Your task to perform on an android device: make emails show in primary in the gmail app Image 0: 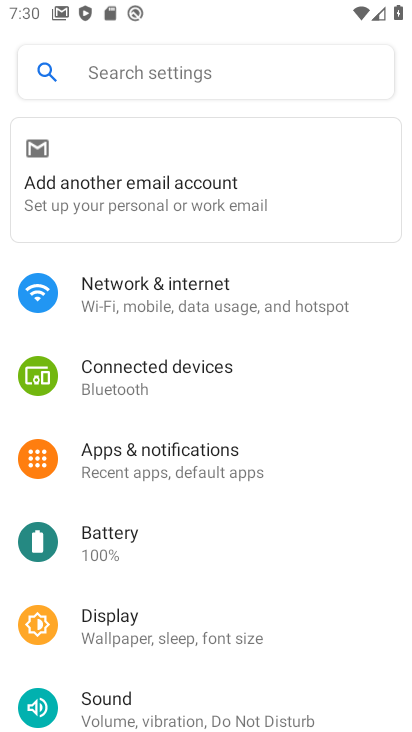
Step 0: press home button
Your task to perform on an android device: make emails show in primary in the gmail app Image 1: 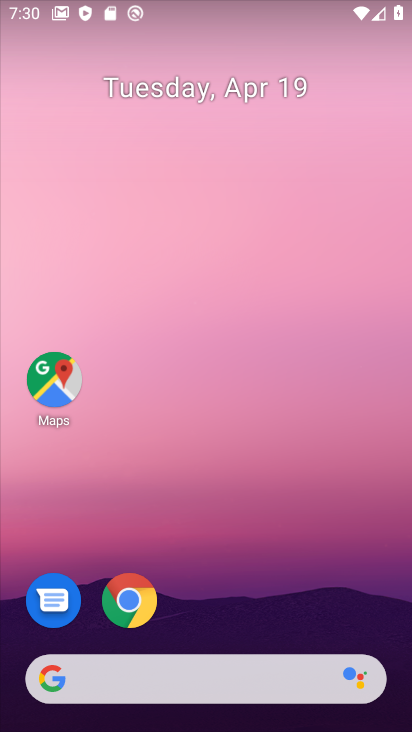
Step 1: drag from (289, 609) to (305, 83)
Your task to perform on an android device: make emails show in primary in the gmail app Image 2: 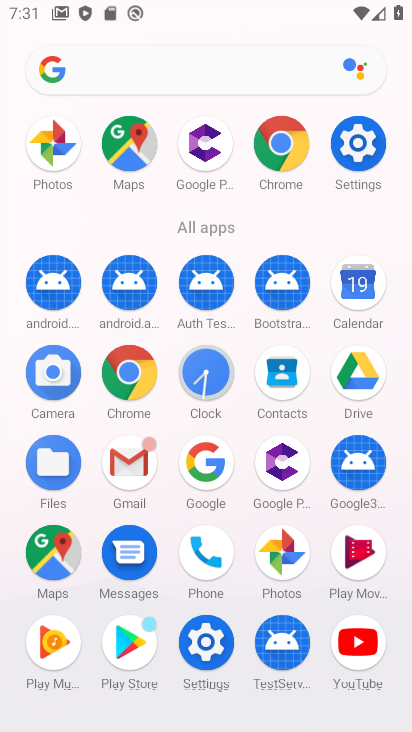
Step 2: click (123, 474)
Your task to perform on an android device: make emails show in primary in the gmail app Image 3: 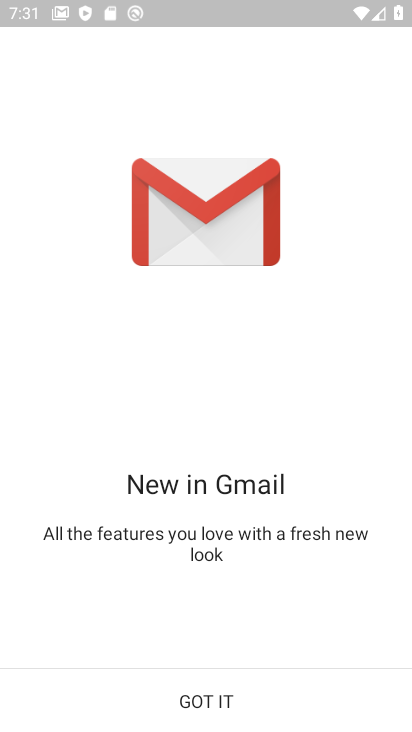
Step 3: click (218, 698)
Your task to perform on an android device: make emails show in primary in the gmail app Image 4: 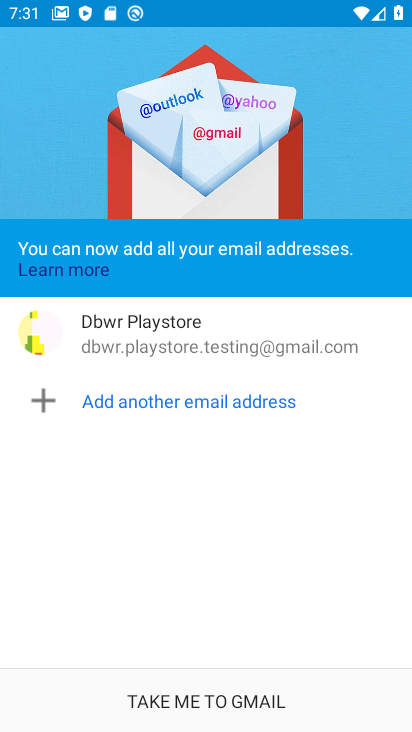
Step 4: click (218, 698)
Your task to perform on an android device: make emails show in primary in the gmail app Image 5: 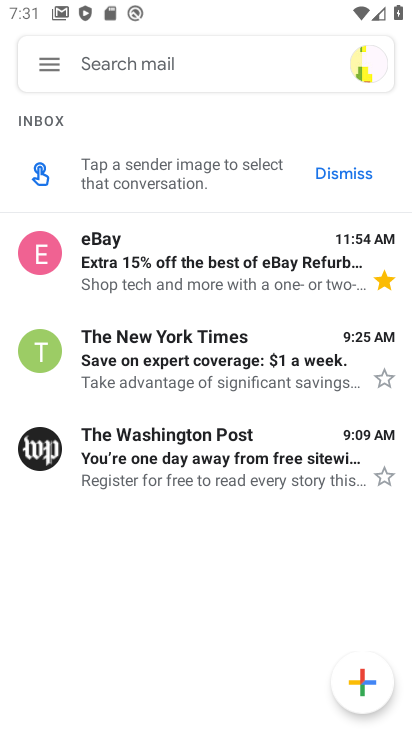
Step 5: click (205, 274)
Your task to perform on an android device: make emails show in primary in the gmail app Image 6: 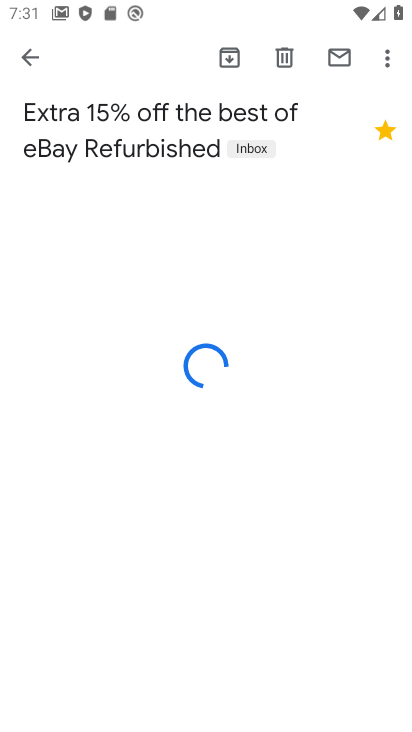
Step 6: click (387, 52)
Your task to perform on an android device: make emails show in primary in the gmail app Image 7: 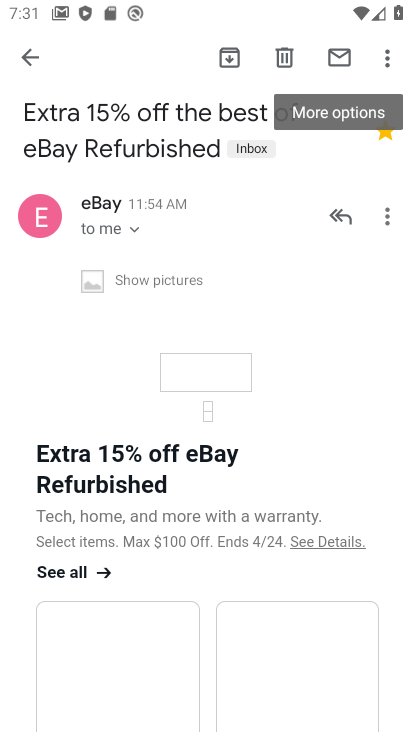
Step 7: click (387, 52)
Your task to perform on an android device: make emails show in primary in the gmail app Image 8: 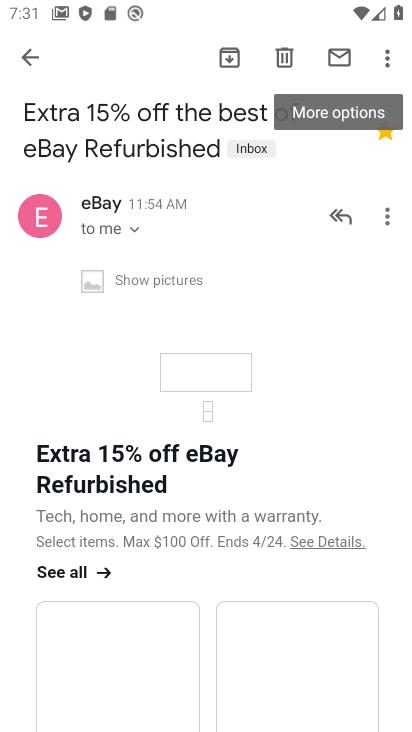
Step 8: click (387, 52)
Your task to perform on an android device: make emails show in primary in the gmail app Image 9: 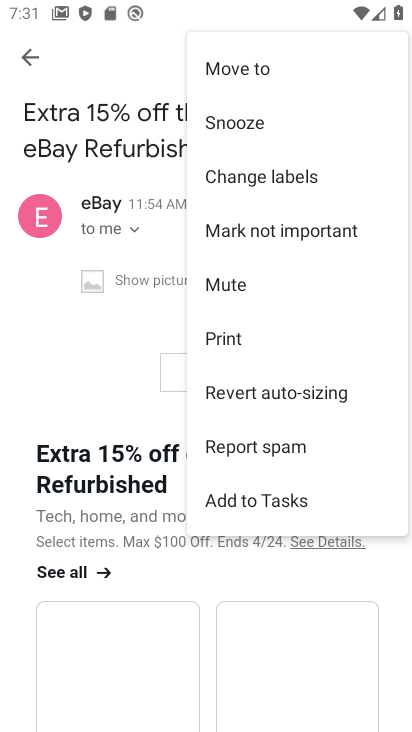
Step 9: click (324, 75)
Your task to perform on an android device: make emails show in primary in the gmail app Image 10: 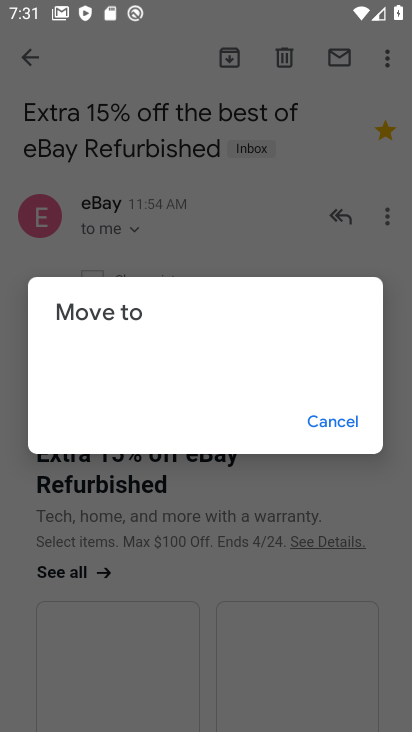
Step 10: task complete